Your task to perform on an android device: Turn off the flashlight Image 0: 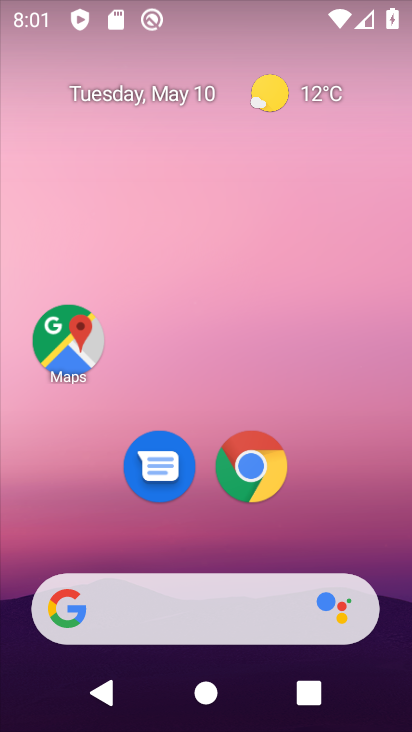
Step 0: drag from (217, 524) to (346, 9)
Your task to perform on an android device: Turn off the flashlight Image 1: 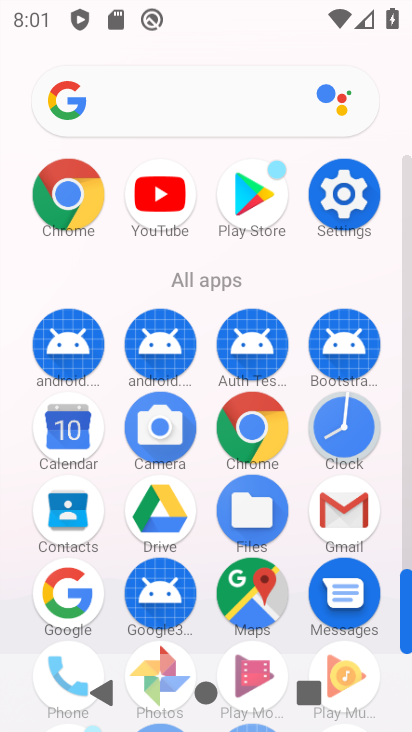
Step 1: click (361, 190)
Your task to perform on an android device: Turn off the flashlight Image 2: 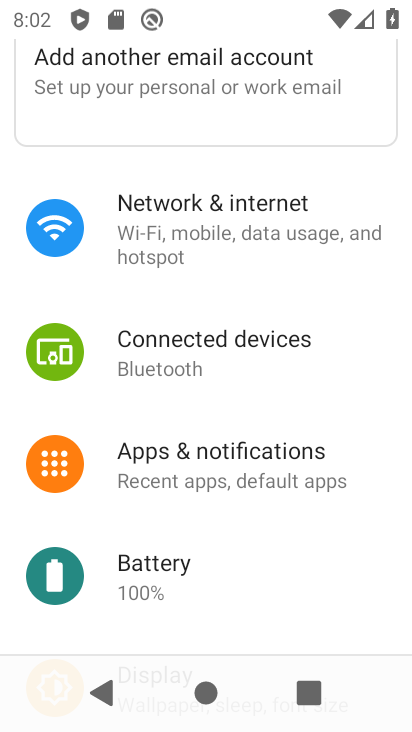
Step 2: drag from (266, 119) to (195, 498)
Your task to perform on an android device: Turn off the flashlight Image 3: 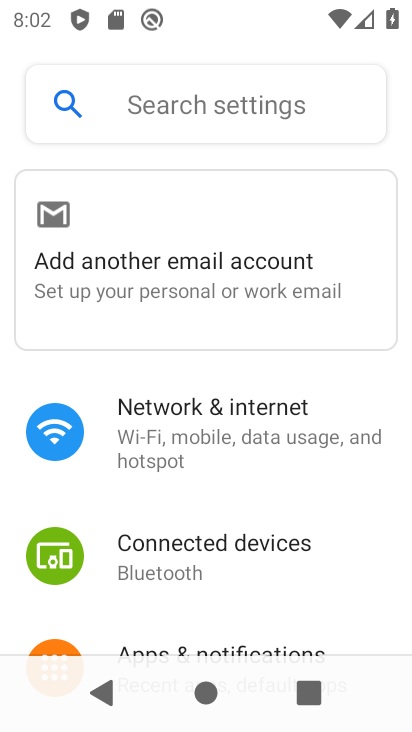
Step 3: click (233, 108)
Your task to perform on an android device: Turn off the flashlight Image 4: 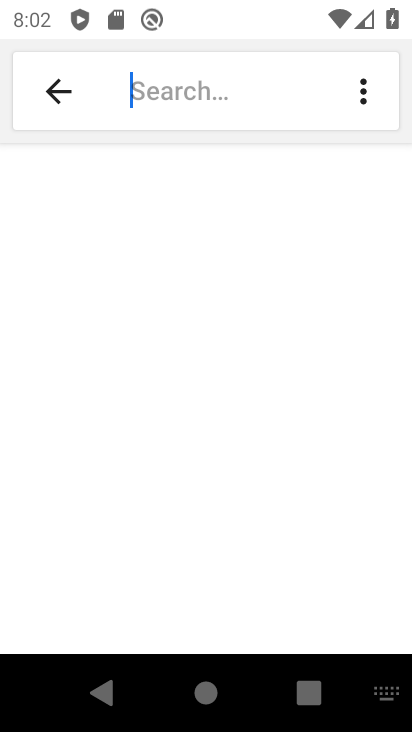
Step 4: type "flashlight"
Your task to perform on an android device: Turn off the flashlight Image 5: 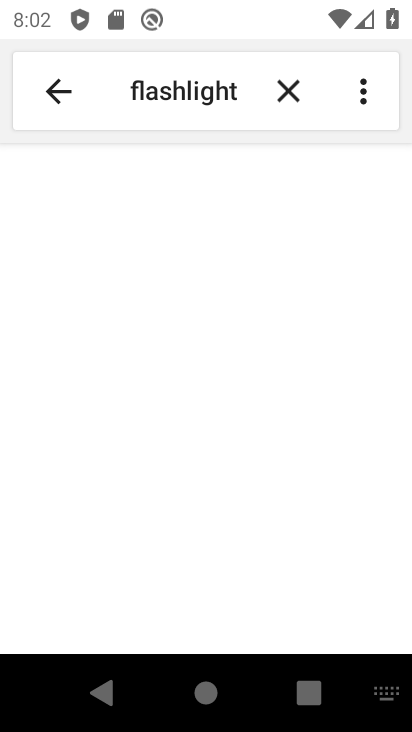
Step 5: click (118, 186)
Your task to perform on an android device: Turn off the flashlight Image 6: 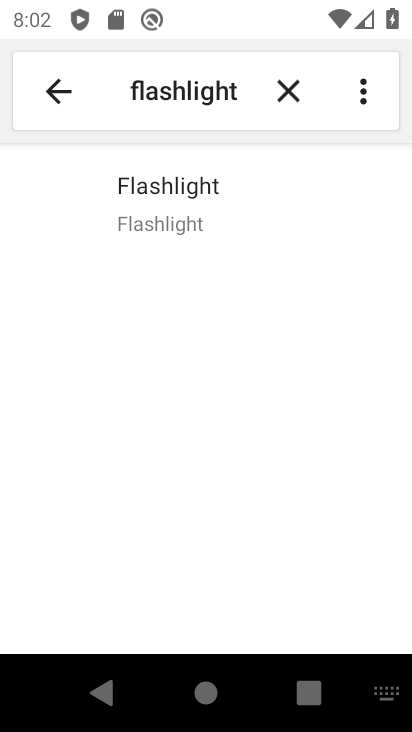
Step 6: click (131, 191)
Your task to perform on an android device: Turn off the flashlight Image 7: 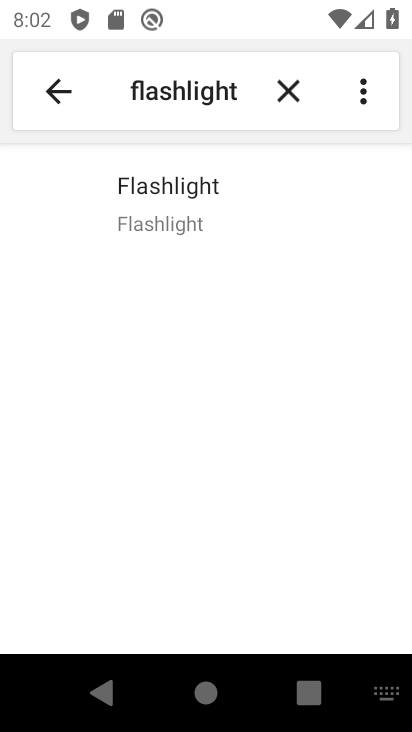
Step 7: click (144, 204)
Your task to perform on an android device: Turn off the flashlight Image 8: 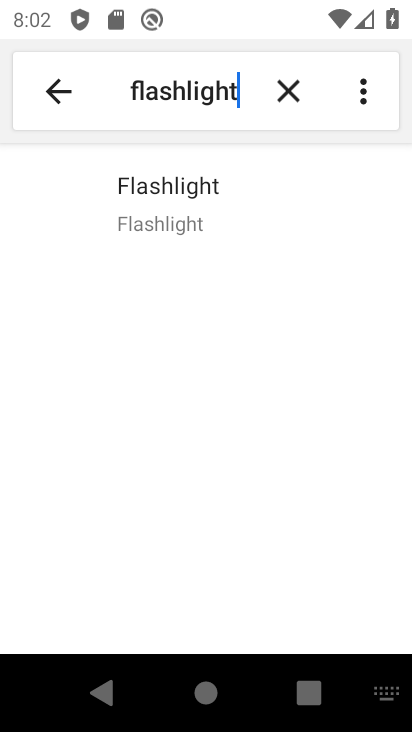
Step 8: task complete